Your task to perform on an android device: Search for pizza restaurants on Maps Image 0: 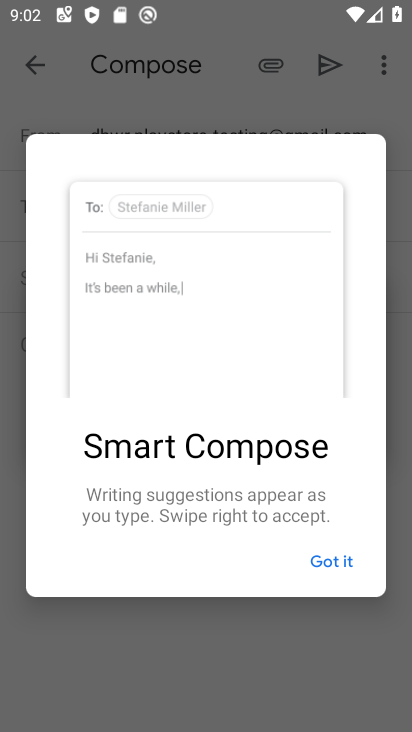
Step 0: press home button
Your task to perform on an android device: Search for pizza restaurants on Maps Image 1: 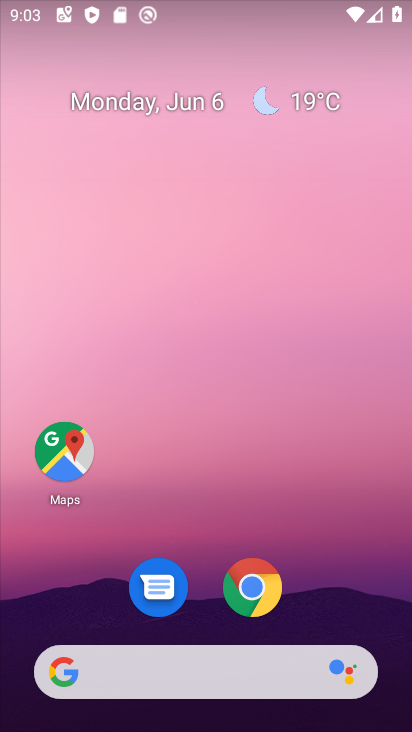
Step 1: click (54, 479)
Your task to perform on an android device: Search for pizza restaurants on Maps Image 2: 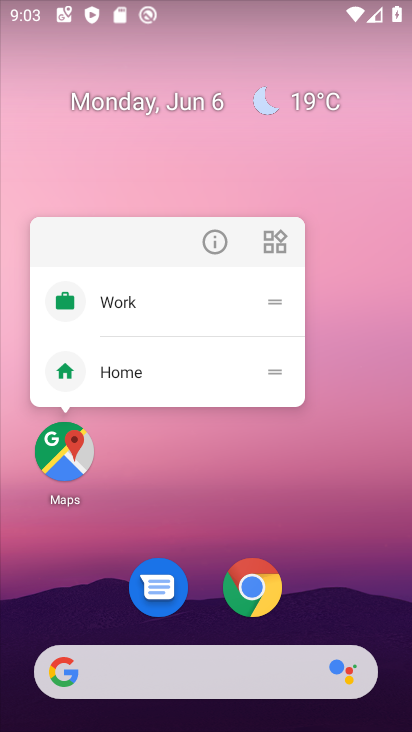
Step 2: click (54, 460)
Your task to perform on an android device: Search for pizza restaurants on Maps Image 3: 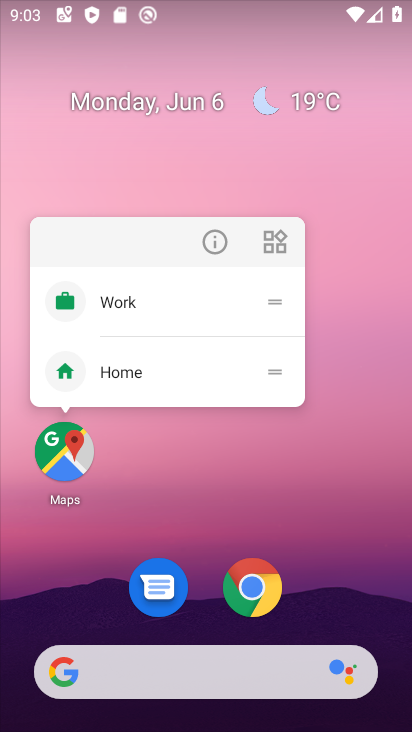
Step 3: click (54, 460)
Your task to perform on an android device: Search for pizza restaurants on Maps Image 4: 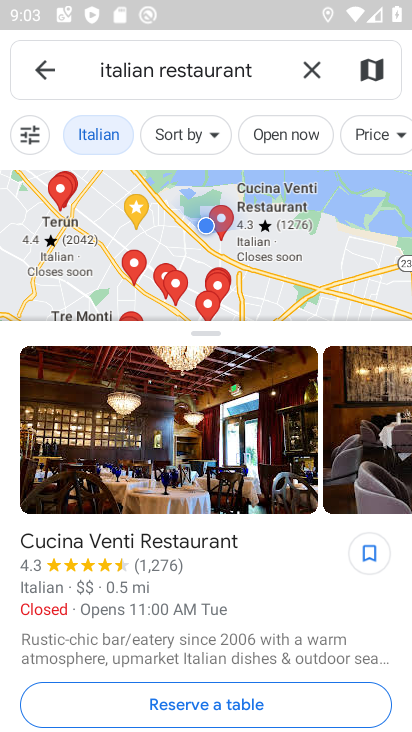
Step 4: click (306, 76)
Your task to perform on an android device: Search for pizza restaurants on Maps Image 5: 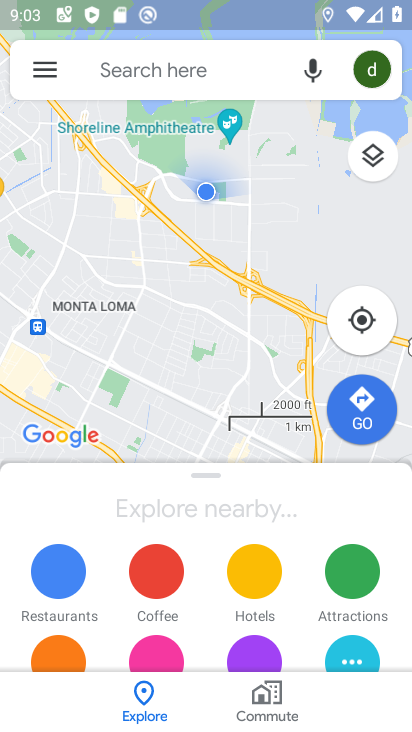
Step 5: click (194, 80)
Your task to perform on an android device: Search for pizza restaurants on Maps Image 6: 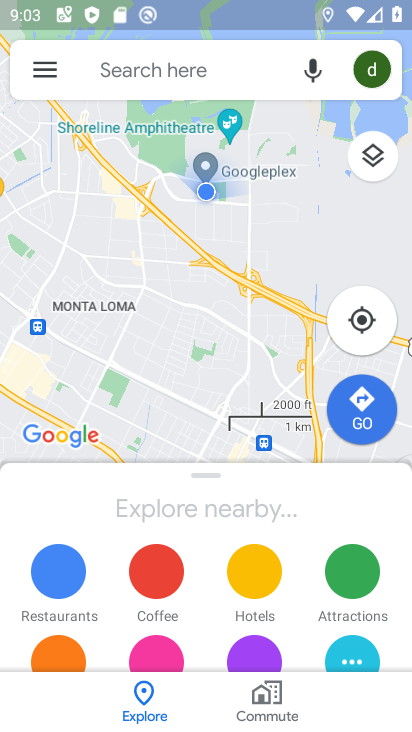
Step 6: click (194, 80)
Your task to perform on an android device: Search for pizza restaurants on Maps Image 7: 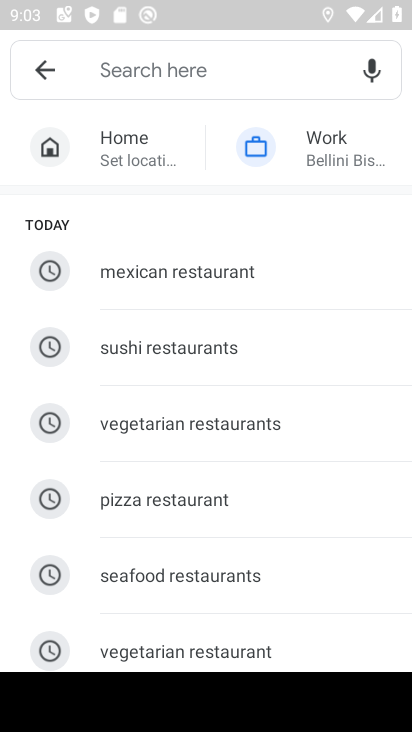
Step 7: click (160, 509)
Your task to perform on an android device: Search for pizza restaurants on Maps Image 8: 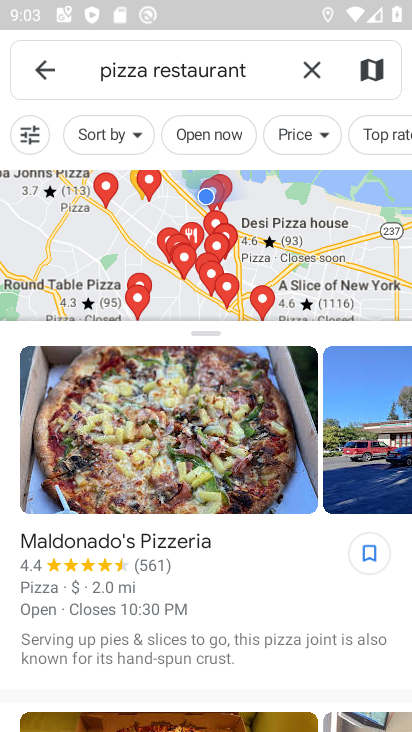
Step 8: task complete